Your task to perform on an android device: Add logitech g pro to the cart on target.com, then select checkout. Image 0: 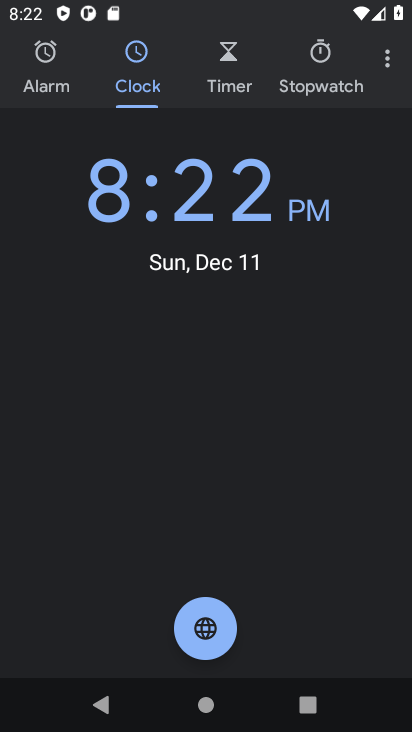
Step 0: press home button
Your task to perform on an android device: Add logitech g pro to the cart on target.com, then select checkout. Image 1: 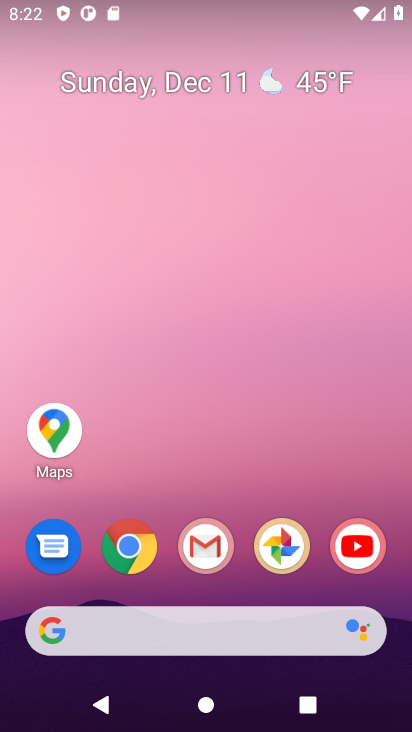
Step 1: click (138, 549)
Your task to perform on an android device: Add logitech g pro to the cart on target.com, then select checkout. Image 2: 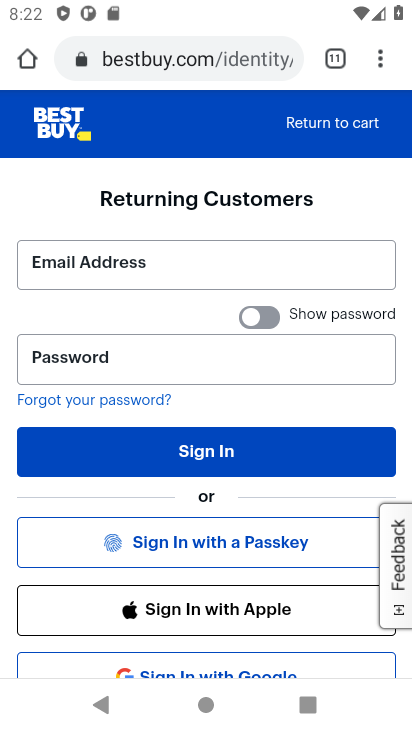
Step 2: click (145, 65)
Your task to perform on an android device: Add logitech g pro to the cart on target.com, then select checkout. Image 3: 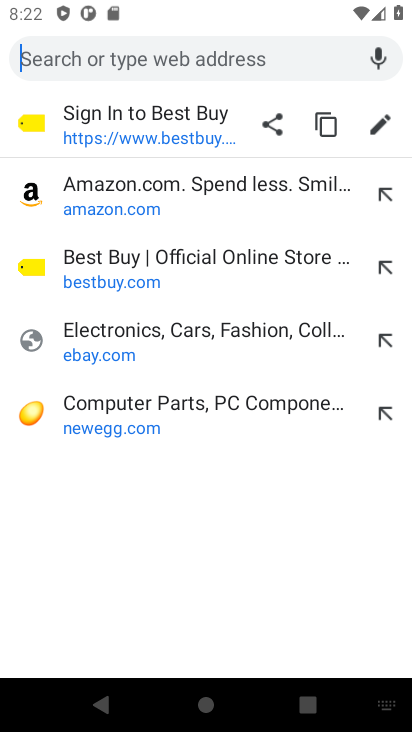
Step 3: type "target.com"
Your task to perform on an android device: Add logitech g pro to the cart on target.com, then select checkout. Image 4: 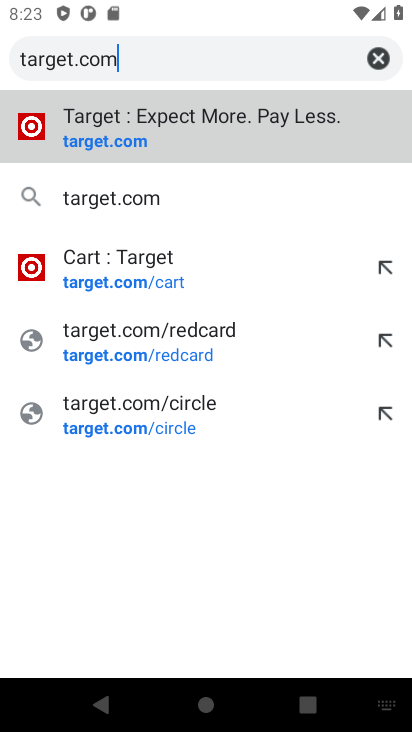
Step 4: click (85, 146)
Your task to perform on an android device: Add logitech g pro to the cart on target.com, then select checkout. Image 5: 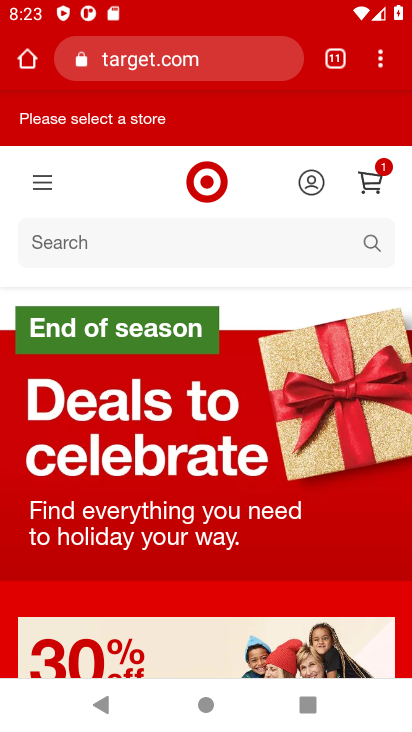
Step 5: click (82, 244)
Your task to perform on an android device: Add logitech g pro to the cart on target.com, then select checkout. Image 6: 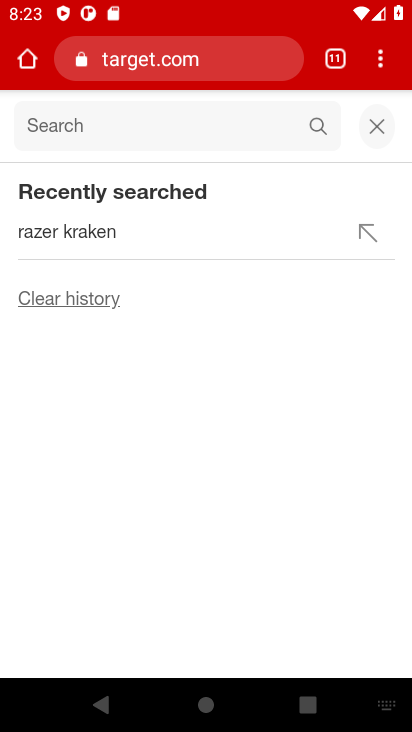
Step 6: type "logitech g pro "
Your task to perform on an android device: Add logitech g pro to the cart on target.com, then select checkout. Image 7: 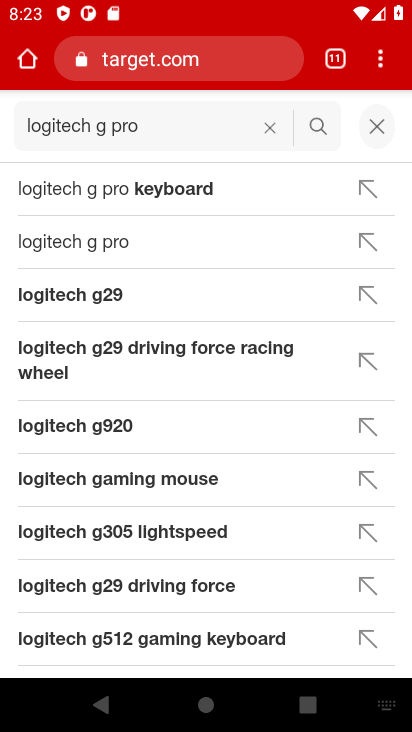
Step 7: click (91, 239)
Your task to perform on an android device: Add logitech g pro to the cart on target.com, then select checkout. Image 8: 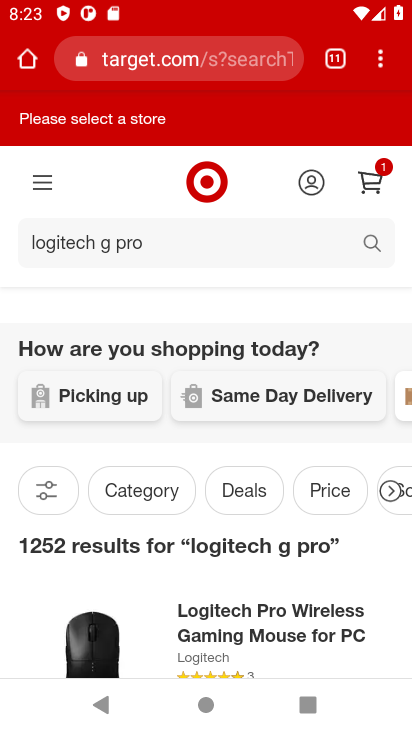
Step 8: task complete